Your task to perform on an android device: Open Google Chrome and click the shortcut for Amazon.com Image 0: 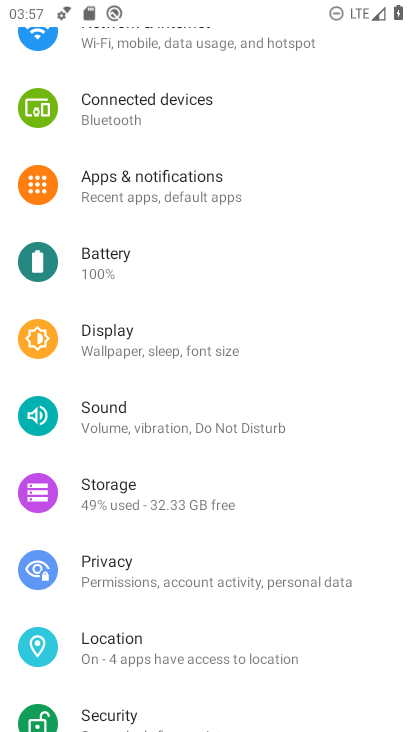
Step 0: press home button
Your task to perform on an android device: Open Google Chrome and click the shortcut for Amazon.com Image 1: 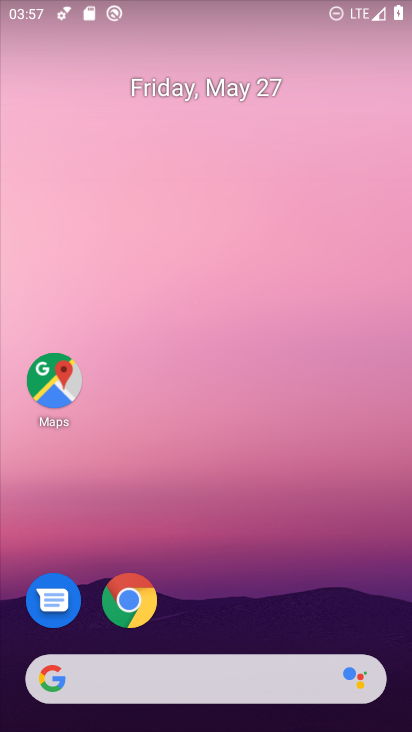
Step 1: click (125, 605)
Your task to perform on an android device: Open Google Chrome and click the shortcut for Amazon.com Image 2: 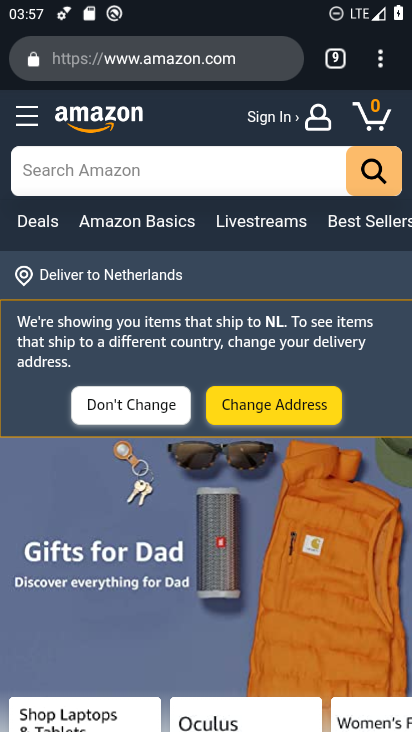
Step 2: task complete